Your task to perform on an android device: Find coffee shops on Maps Image 0: 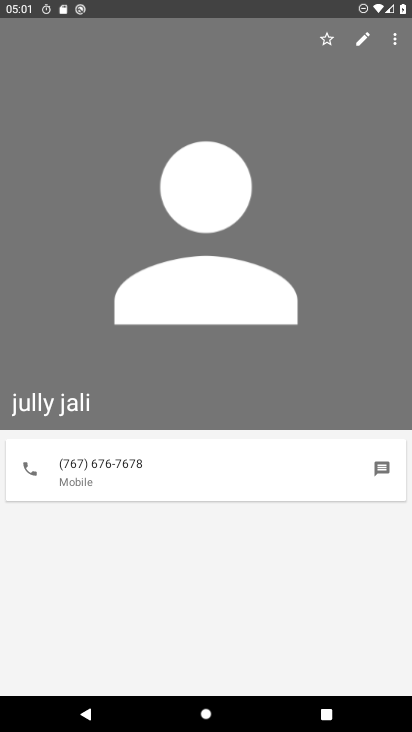
Step 0: press home button
Your task to perform on an android device: Find coffee shops on Maps Image 1: 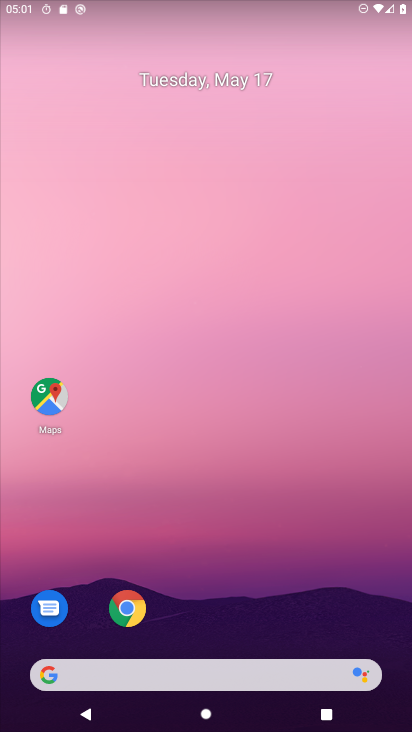
Step 1: click (51, 397)
Your task to perform on an android device: Find coffee shops on Maps Image 2: 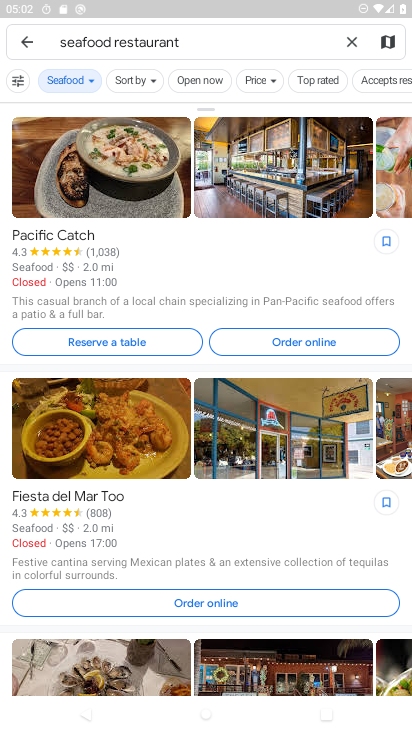
Step 2: click (344, 40)
Your task to perform on an android device: Find coffee shops on Maps Image 3: 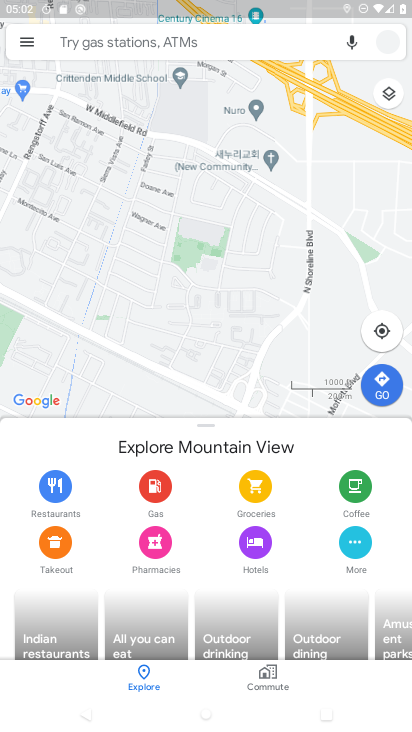
Step 3: click (174, 37)
Your task to perform on an android device: Find coffee shops on Maps Image 4: 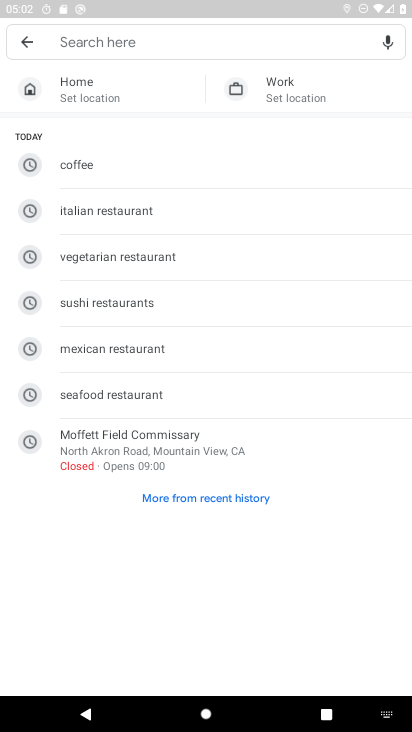
Step 4: click (96, 165)
Your task to perform on an android device: Find coffee shops on Maps Image 5: 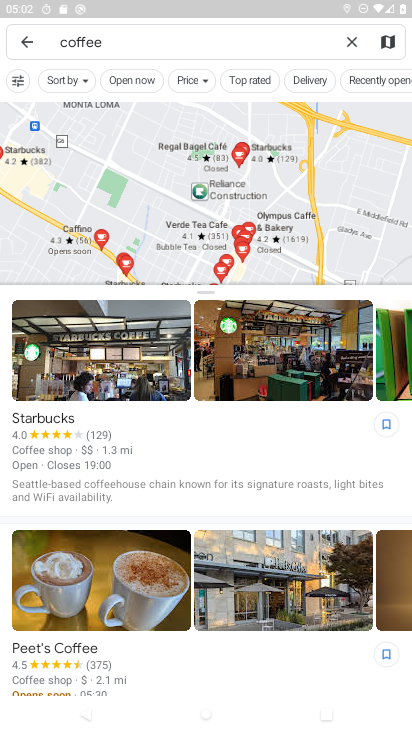
Step 5: task complete